Your task to perform on an android device: turn on location history Image 0: 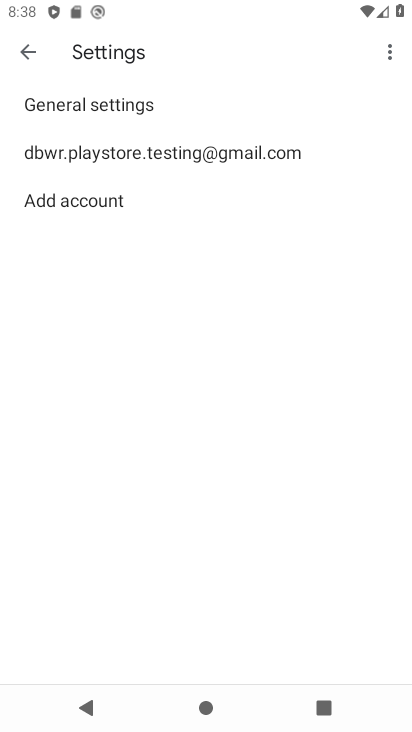
Step 0: press back button
Your task to perform on an android device: turn on location history Image 1: 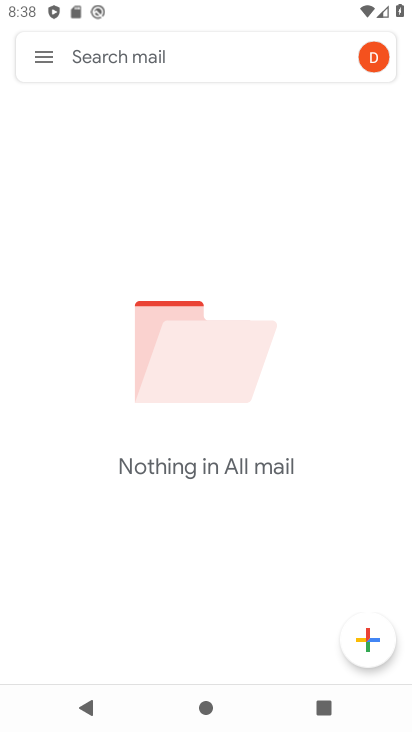
Step 1: press back button
Your task to perform on an android device: turn on location history Image 2: 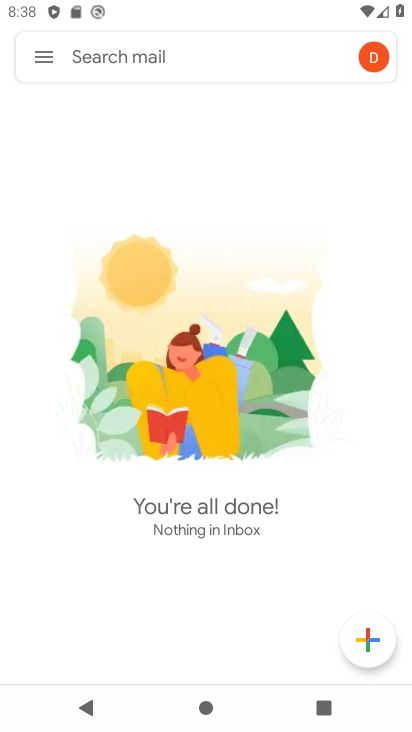
Step 2: press back button
Your task to perform on an android device: turn on location history Image 3: 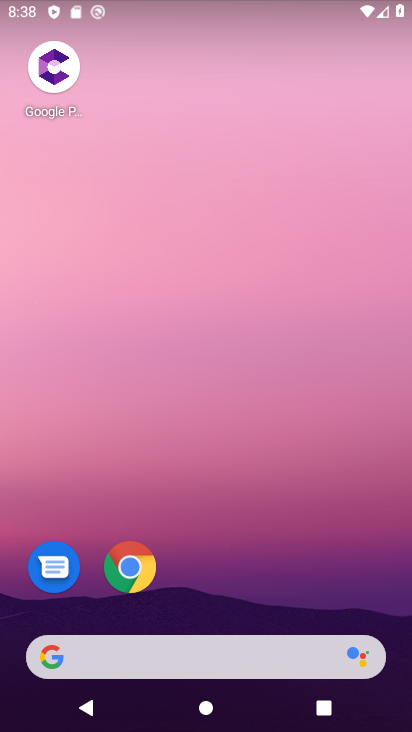
Step 3: drag from (276, 588) to (205, 178)
Your task to perform on an android device: turn on location history Image 4: 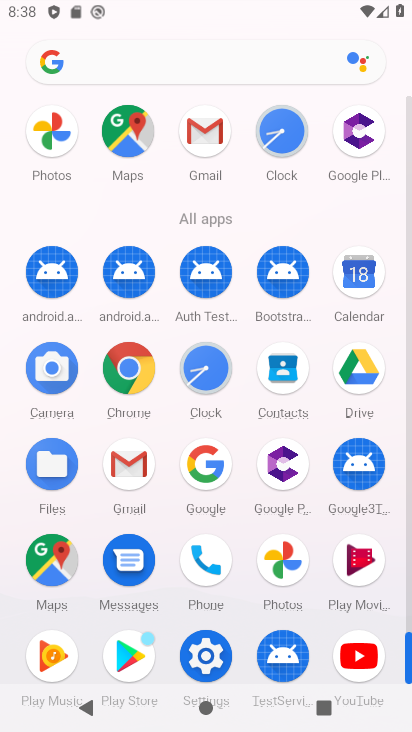
Step 4: drag from (241, 548) to (249, 286)
Your task to perform on an android device: turn on location history Image 5: 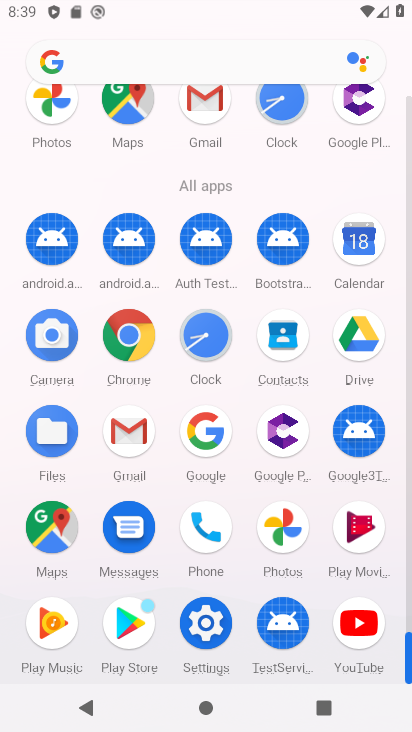
Step 5: click (207, 624)
Your task to perform on an android device: turn on location history Image 6: 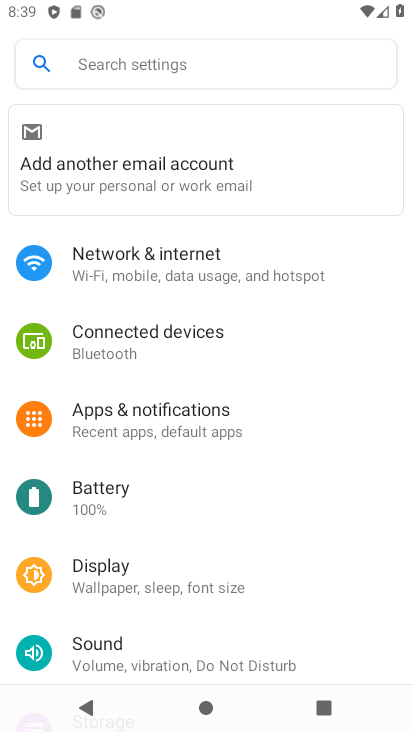
Step 6: drag from (172, 508) to (173, 399)
Your task to perform on an android device: turn on location history Image 7: 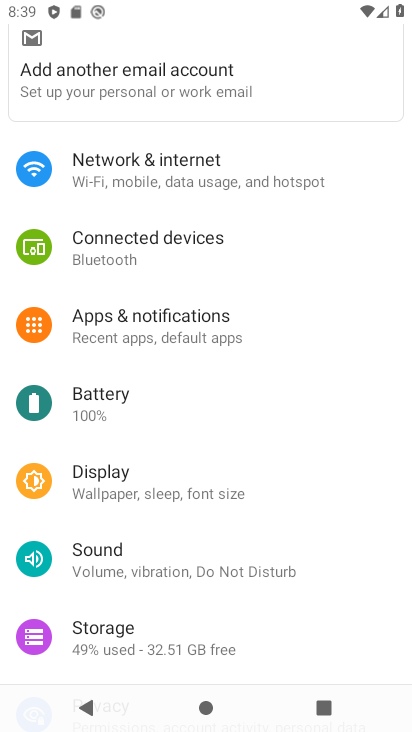
Step 7: drag from (171, 604) to (195, 496)
Your task to perform on an android device: turn on location history Image 8: 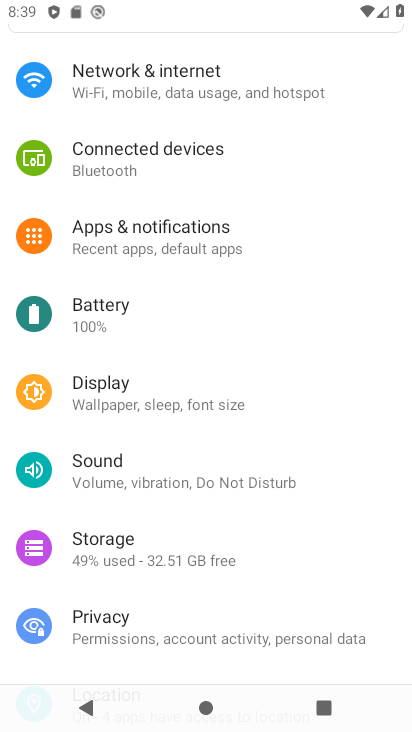
Step 8: drag from (191, 522) to (249, 445)
Your task to perform on an android device: turn on location history Image 9: 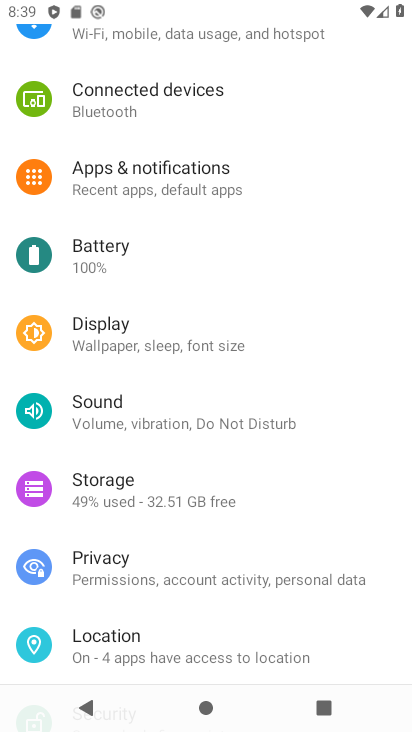
Step 9: drag from (146, 548) to (182, 455)
Your task to perform on an android device: turn on location history Image 10: 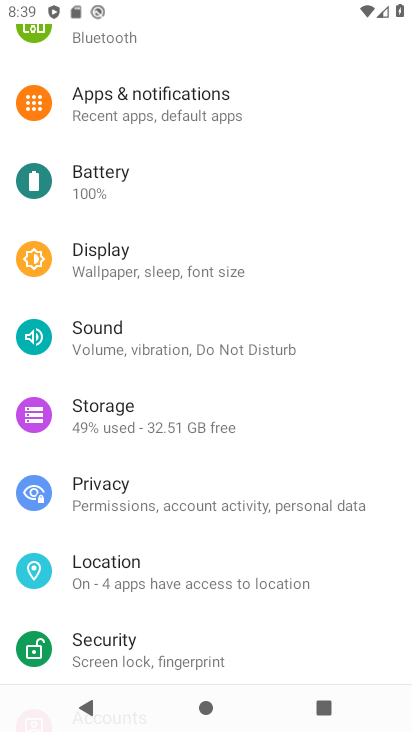
Step 10: drag from (146, 534) to (167, 458)
Your task to perform on an android device: turn on location history Image 11: 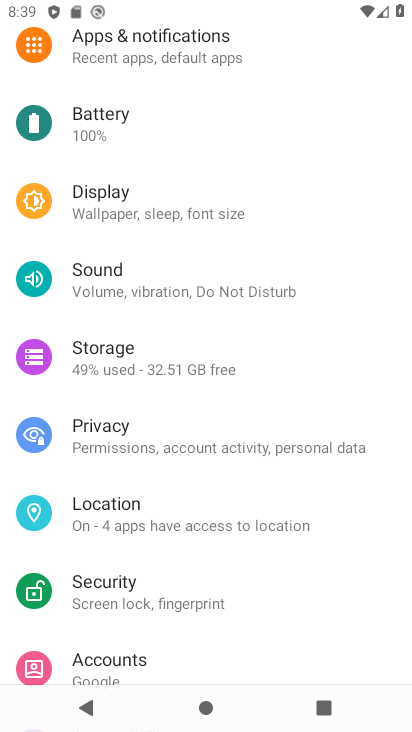
Step 11: click (131, 515)
Your task to perform on an android device: turn on location history Image 12: 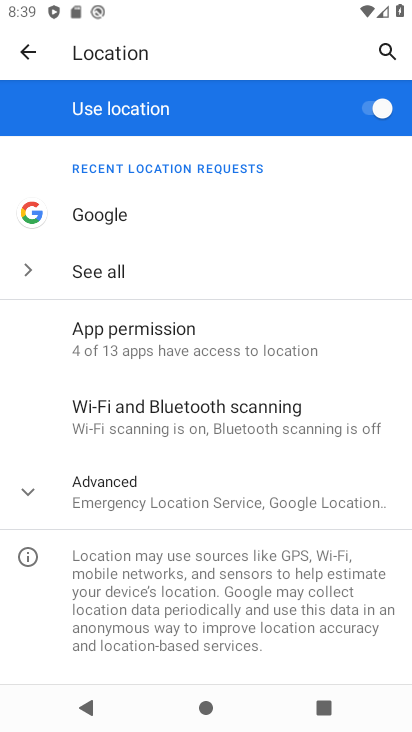
Step 12: click (190, 500)
Your task to perform on an android device: turn on location history Image 13: 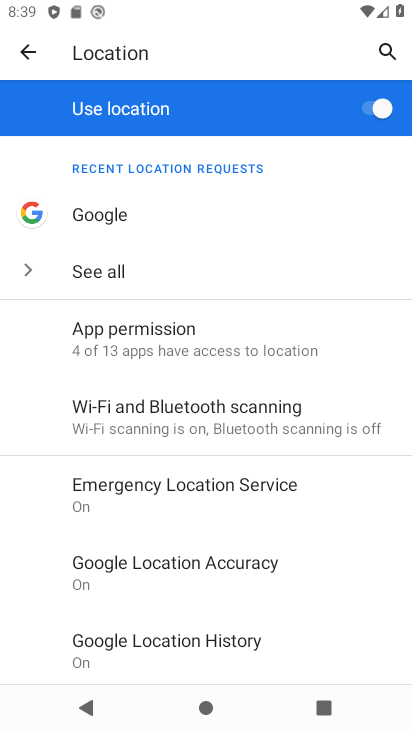
Step 13: task complete